Your task to perform on an android device: Go to Maps Image 0: 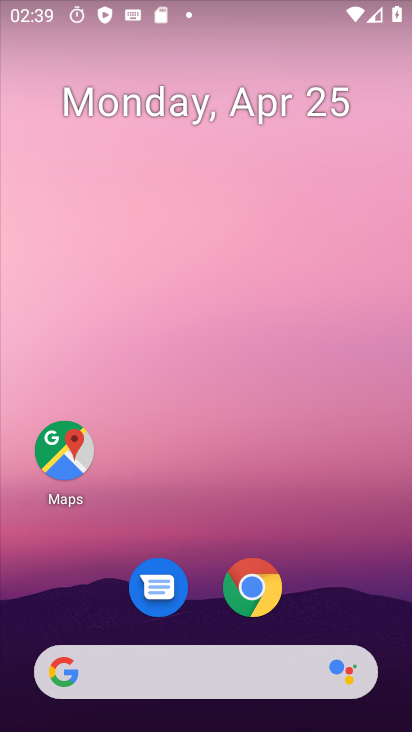
Step 0: drag from (339, 408) to (334, 7)
Your task to perform on an android device: Go to Maps Image 1: 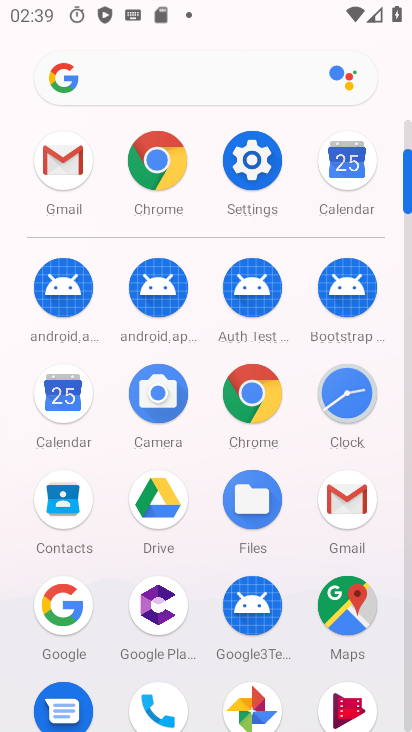
Step 1: click (355, 607)
Your task to perform on an android device: Go to Maps Image 2: 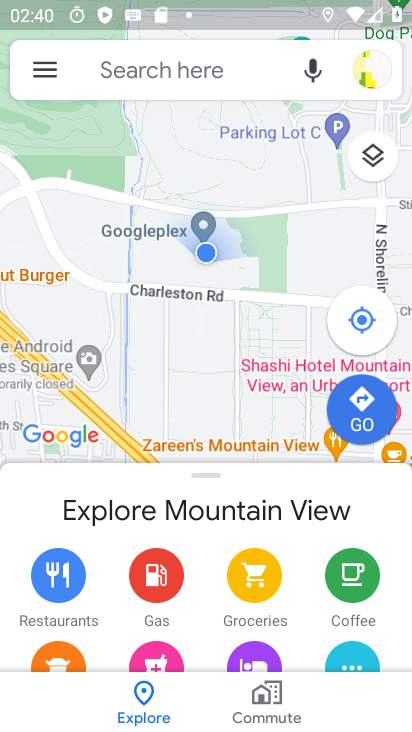
Step 2: task complete